Your task to perform on an android device: Search for seafood restaurants on Google Maps Image 0: 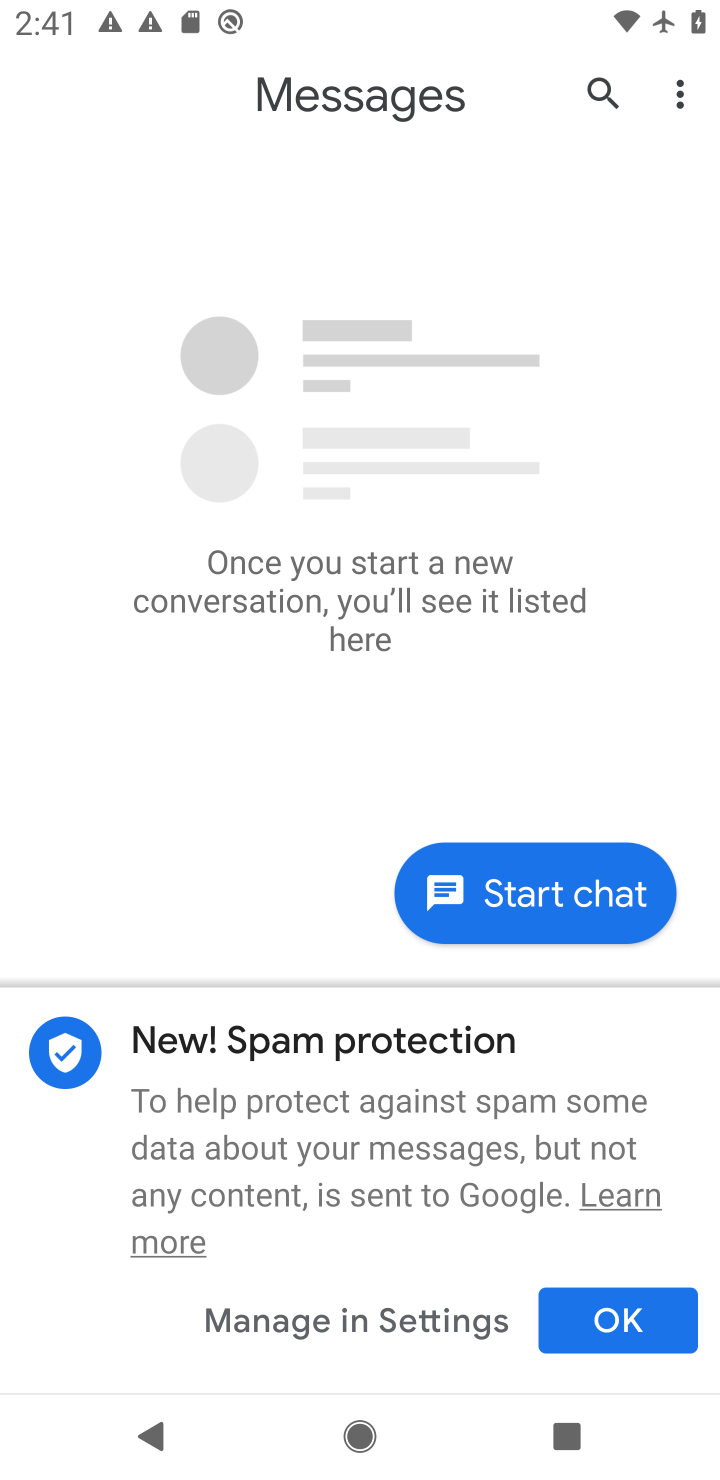
Step 0: task complete